Your task to perform on an android device: Open the Play Movies app and select the watchlist tab. Image 0: 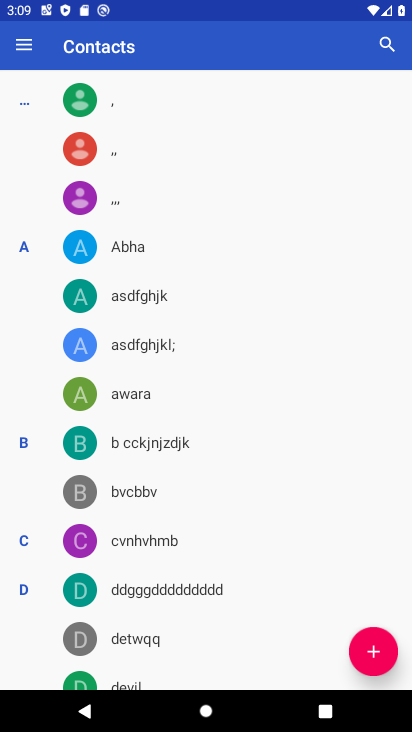
Step 0: press home button
Your task to perform on an android device: Open the Play Movies app and select the watchlist tab. Image 1: 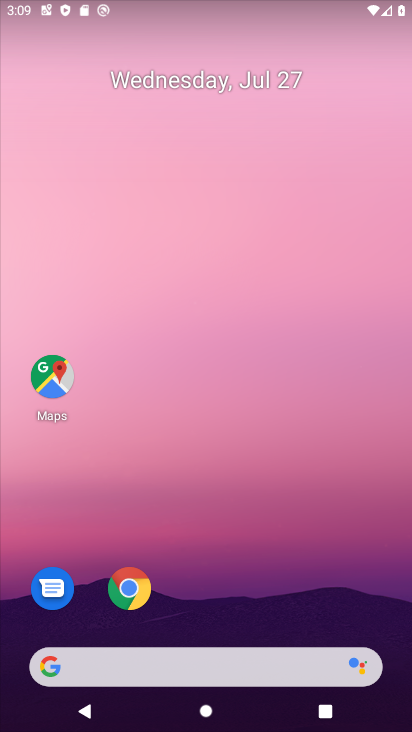
Step 1: drag from (218, 616) to (218, 18)
Your task to perform on an android device: Open the Play Movies app and select the watchlist tab. Image 2: 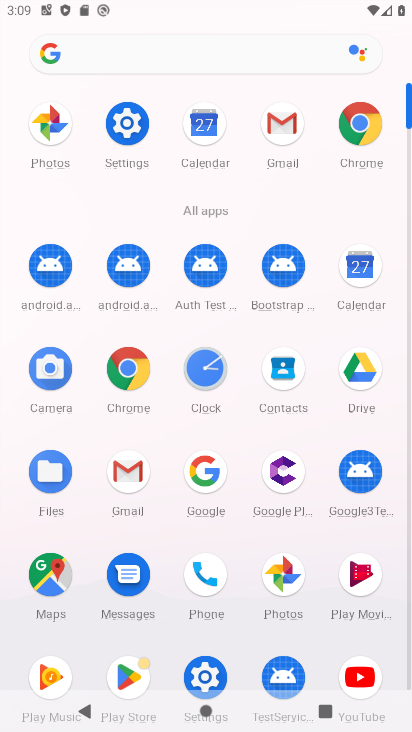
Step 2: click (347, 566)
Your task to perform on an android device: Open the Play Movies app and select the watchlist tab. Image 3: 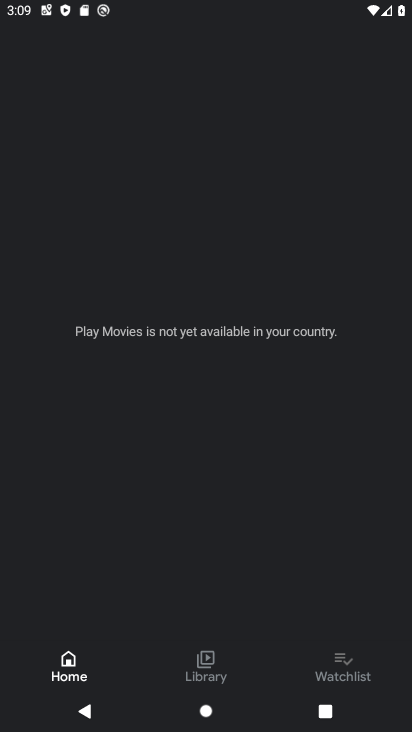
Step 3: click (344, 659)
Your task to perform on an android device: Open the Play Movies app and select the watchlist tab. Image 4: 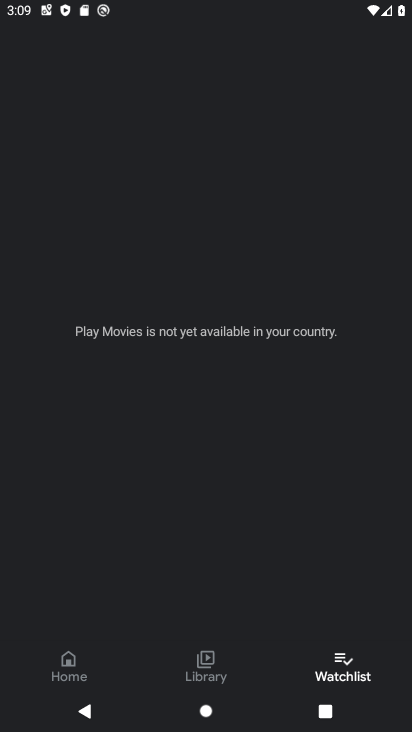
Step 4: task complete